Your task to perform on an android device: turn notification dots on Image 0: 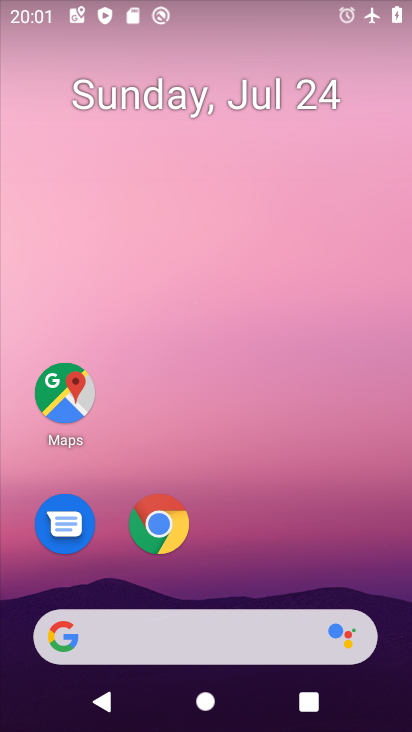
Step 0: drag from (261, 557) to (288, 19)
Your task to perform on an android device: turn notification dots on Image 1: 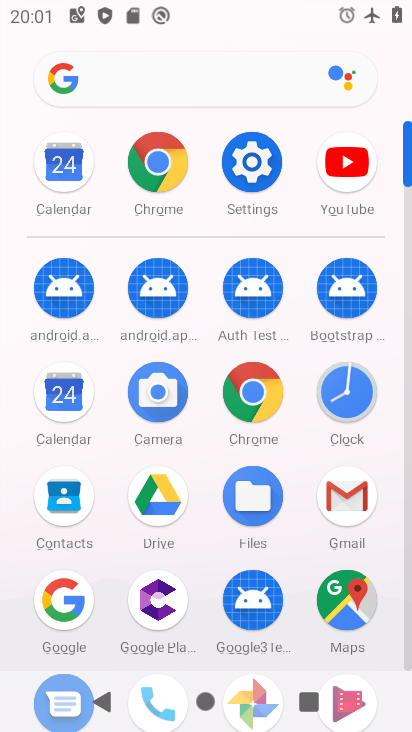
Step 1: click (255, 148)
Your task to perform on an android device: turn notification dots on Image 2: 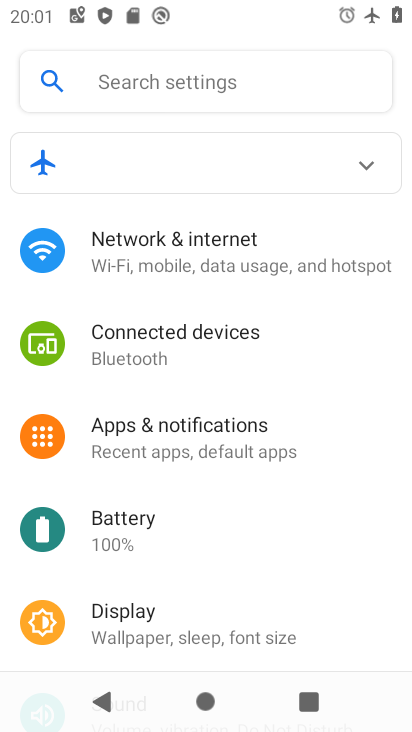
Step 2: click (196, 450)
Your task to perform on an android device: turn notification dots on Image 3: 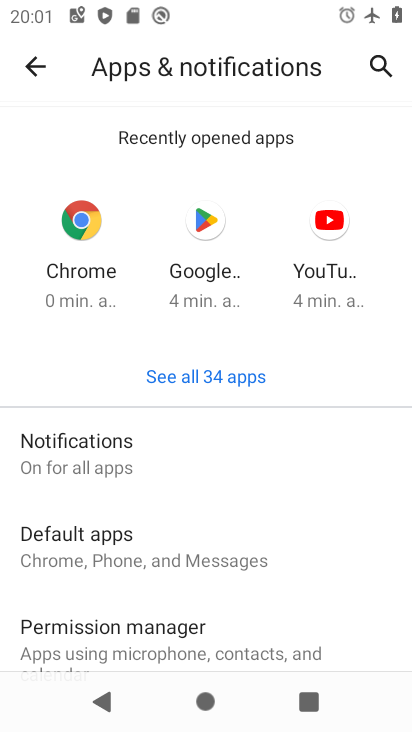
Step 3: click (106, 445)
Your task to perform on an android device: turn notification dots on Image 4: 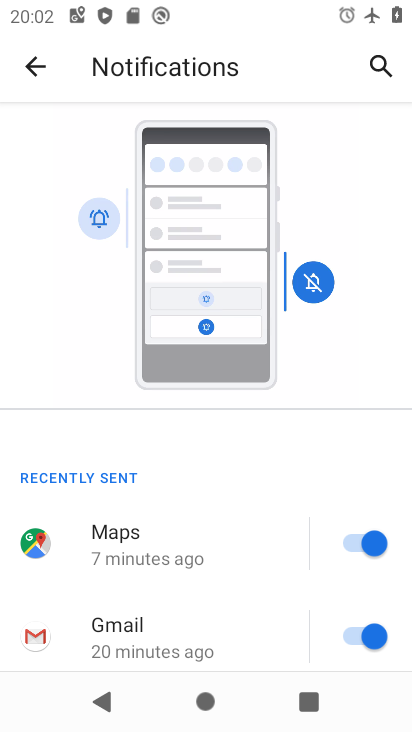
Step 4: drag from (228, 586) to (296, 114)
Your task to perform on an android device: turn notification dots on Image 5: 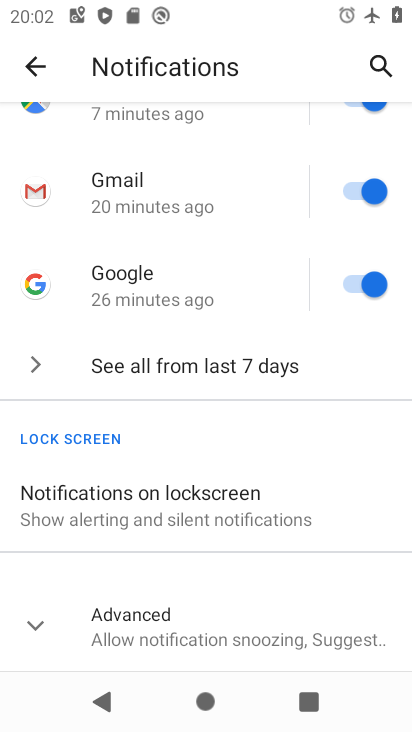
Step 5: drag from (227, 449) to (234, 137)
Your task to perform on an android device: turn notification dots on Image 6: 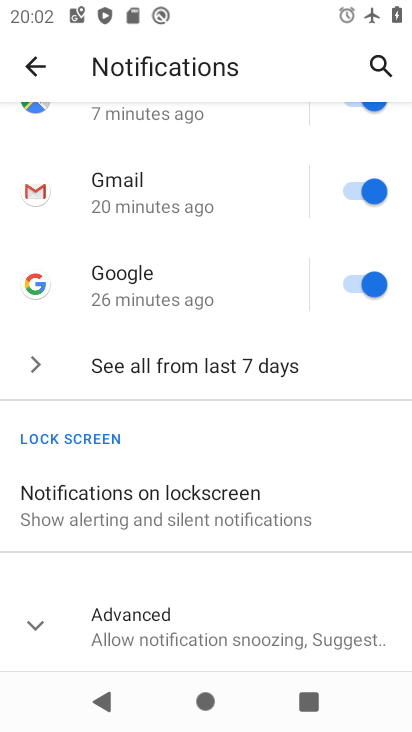
Step 6: click (34, 620)
Your task to perform on an android device: turn notification dots on Image 7: 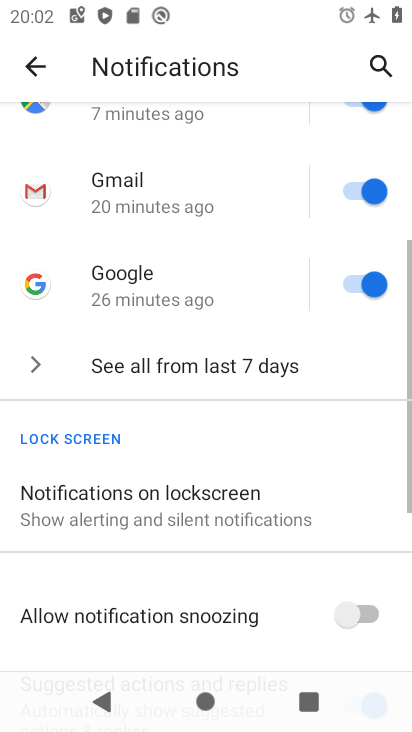
Step 7: task complete